Your task to perform on an android device: Go to location settings Image 0: 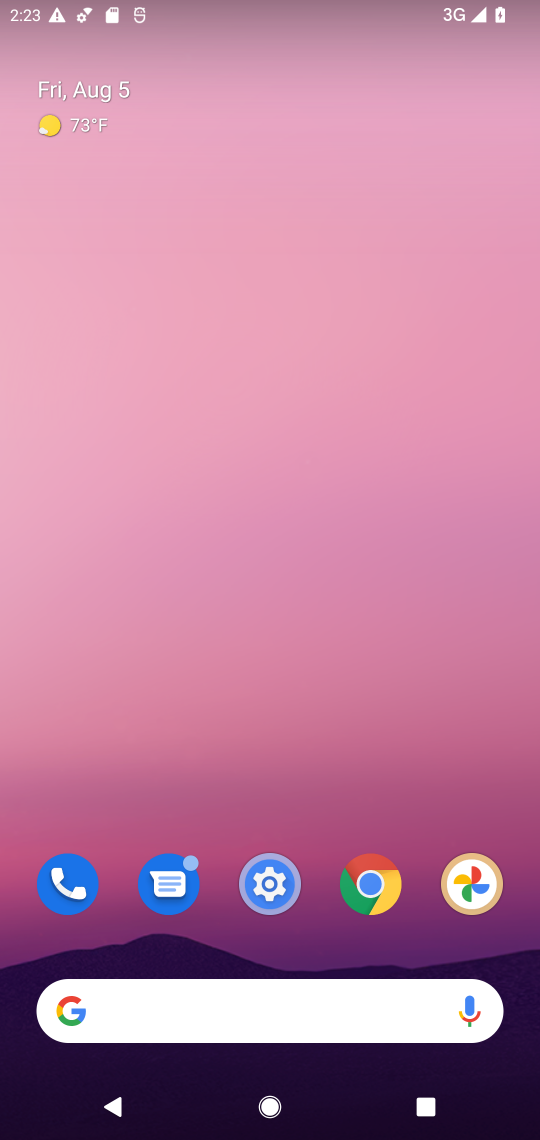
Step 0: drag from (423, 901) to (255, 99)
Your task to perform on an android device: Go to location settings Image 1: 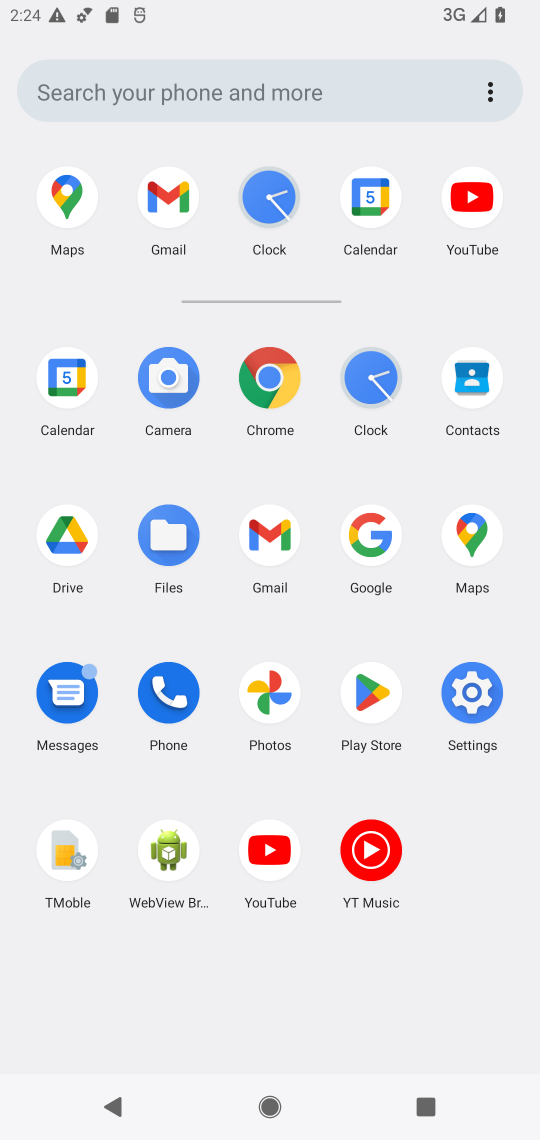
Step 1: click (477, 680)
Your task to perform on an android device: Go to location settings Image 2: 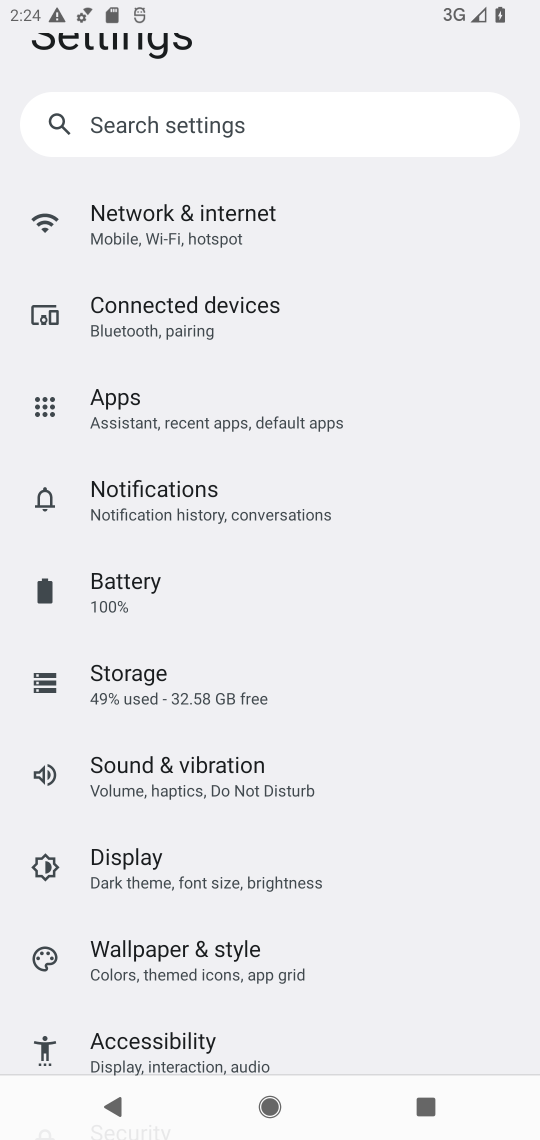
Step 2: drag from (254, 859) to (263, 363)
Your task to perform on an android device: Go to location settings Image 3: 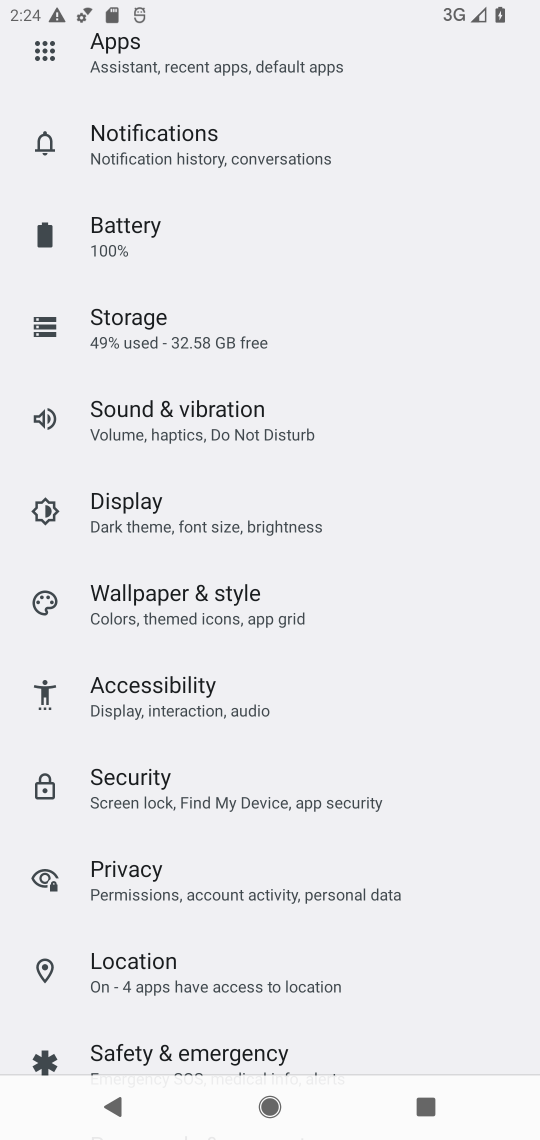
Step 3: click (136, 960)
Your task to perform on an android device: Go to location settings Image 4: 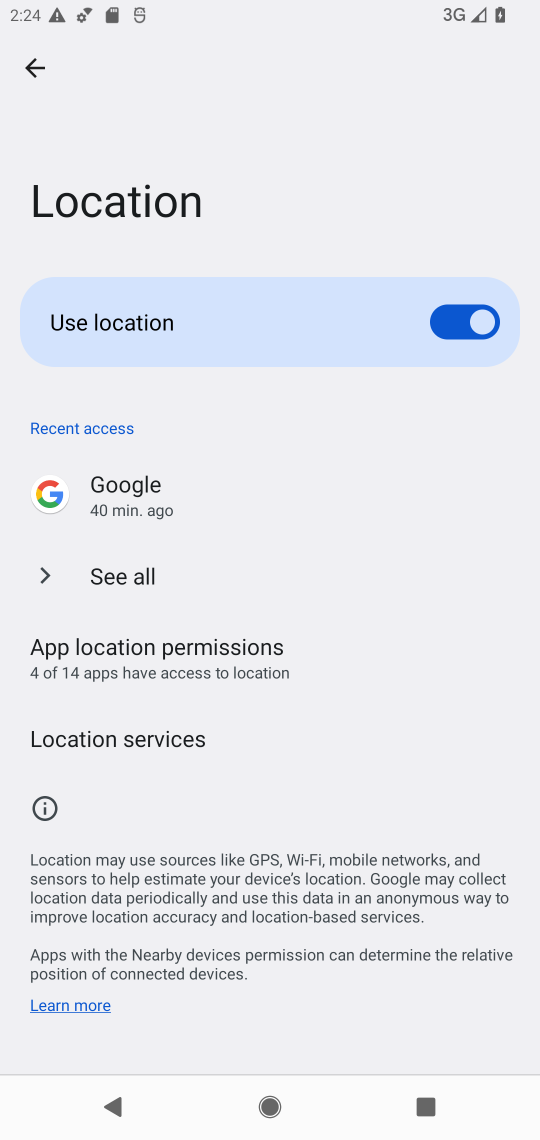
Step 4: task complete